Your task to perform on an android device: Empty the shopping cart on amazon. Add "razer naga" to the cart on amazon Image 0: 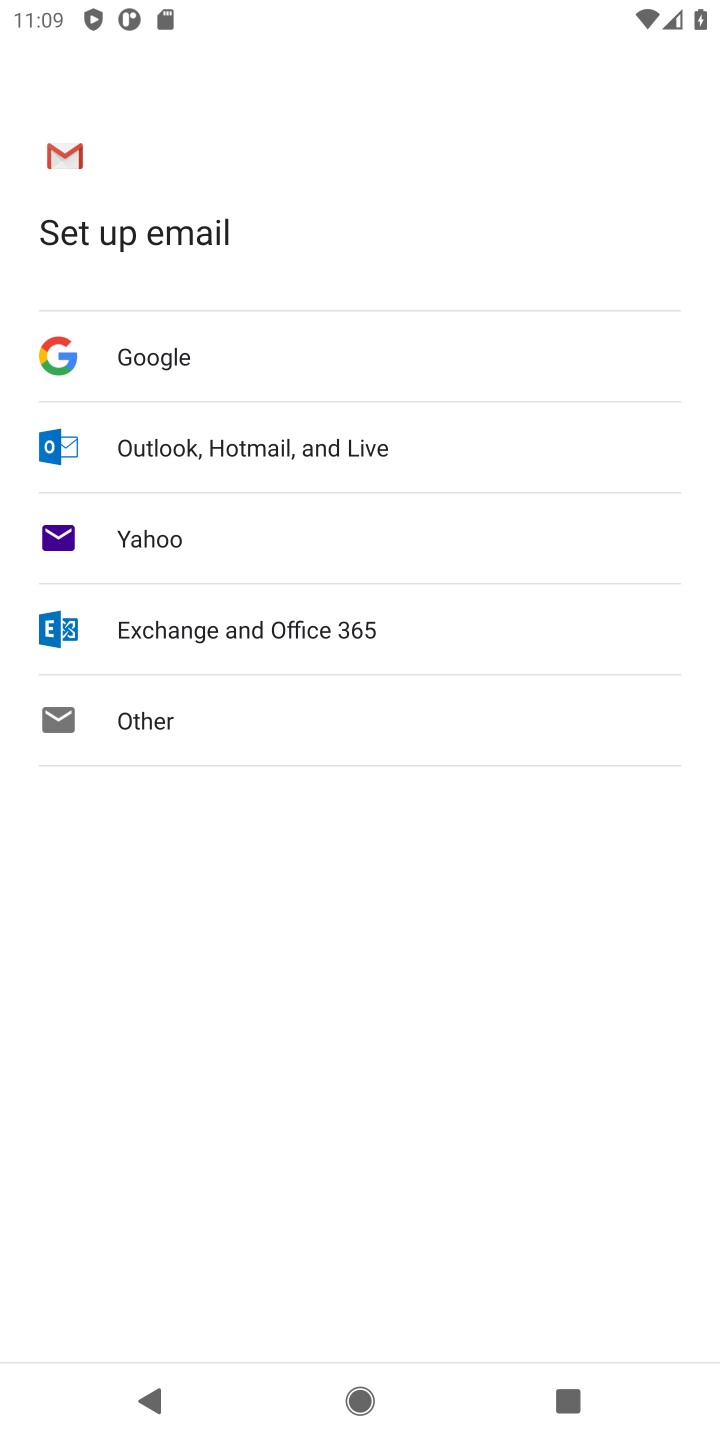
Step 0: press home button
Your task to perform on an android device: Empty the shopping cart on amazon. Add "razer naga" to the cart on amazon Image 1: 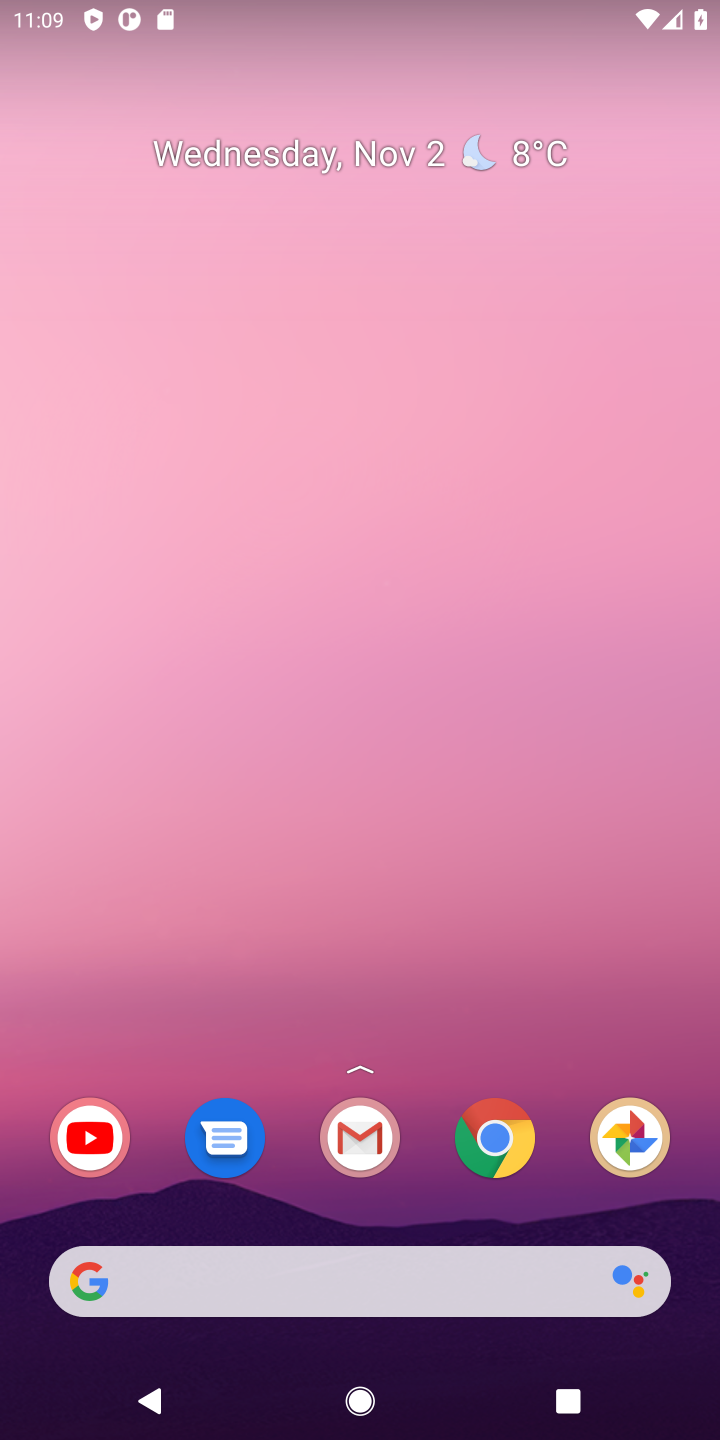
Step 1: click (515, 1143)
Your task to perform on an android device: Empty the shopping cart on amazon. Add "razer naga" to the cart on amazon Image 2: 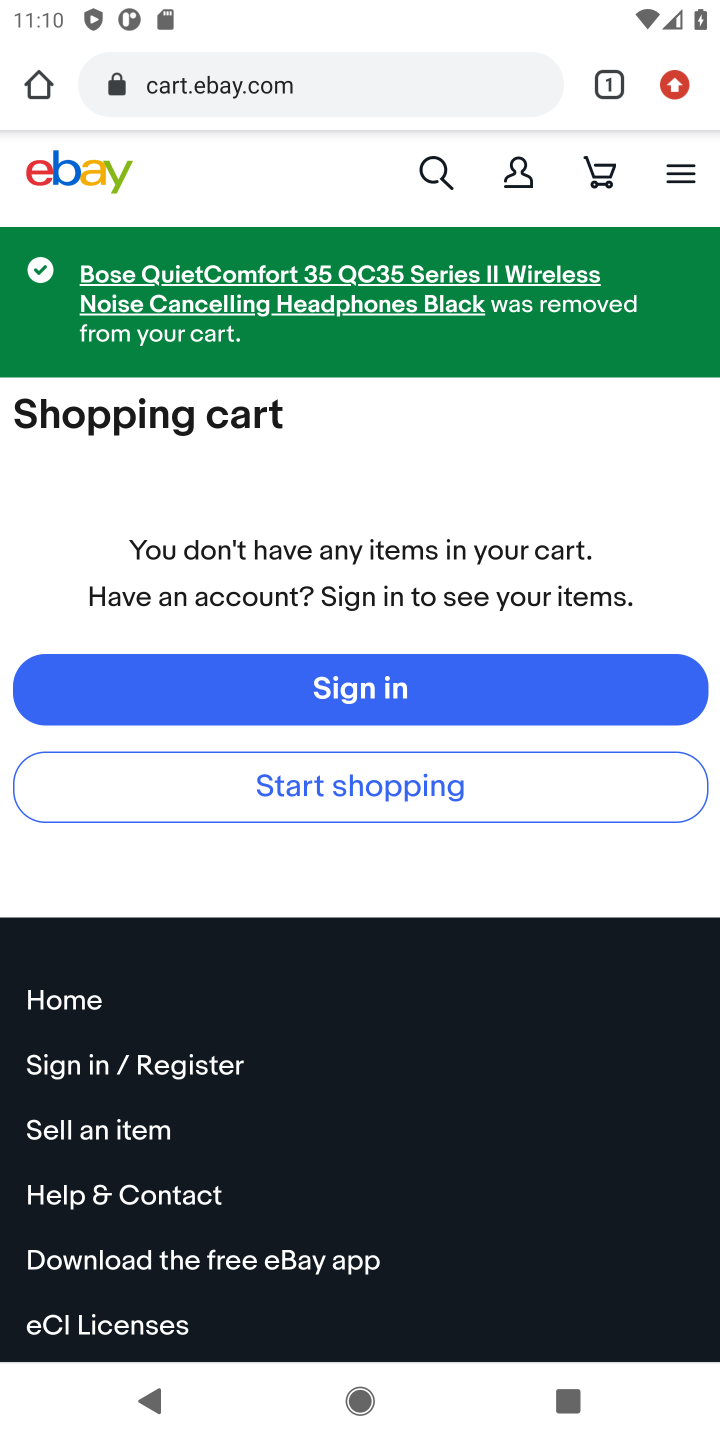
Step 2: click (370, 62)
Your task to perform on an android device: Empty the shopping cart on amazon. Add "razer naga" to the cart on amazon Image 3: 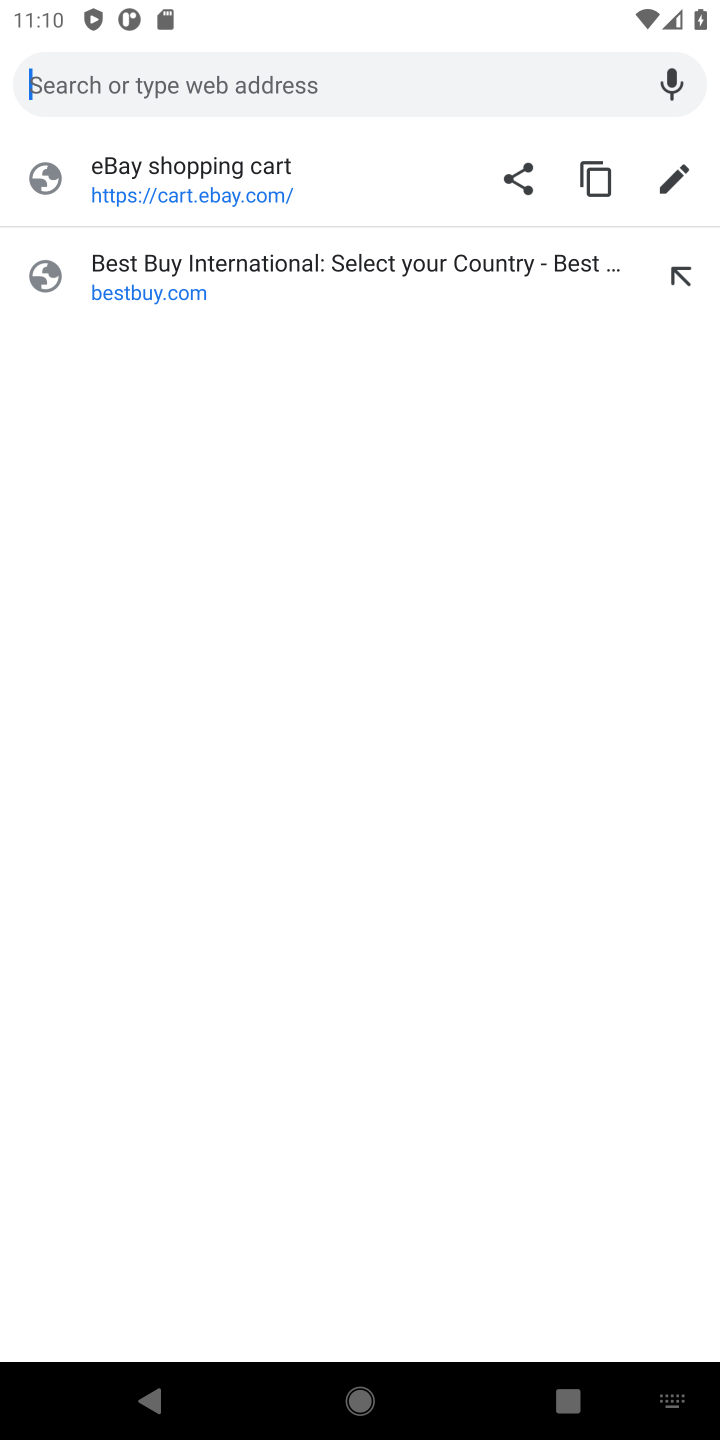
Step 3: type "amazon"
Your task to perform on an android device: Empty the shopping cart on amazon. Add "razer naga" to the cart on amazon Image 4: 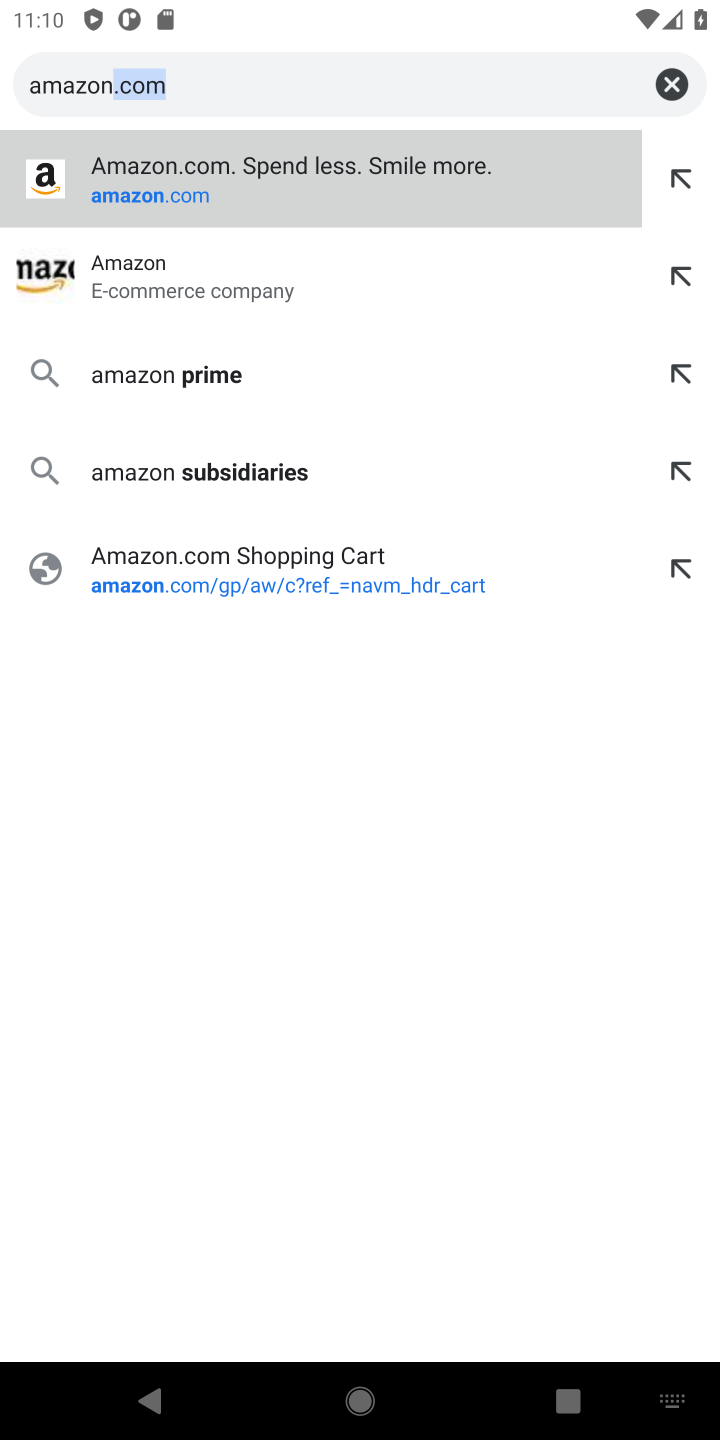
Step 4: click (269, 281)
Your task to perform on an android device: Empty the shopping cart on amazon. Add "razer naga" to the cart on amazon Image 5: 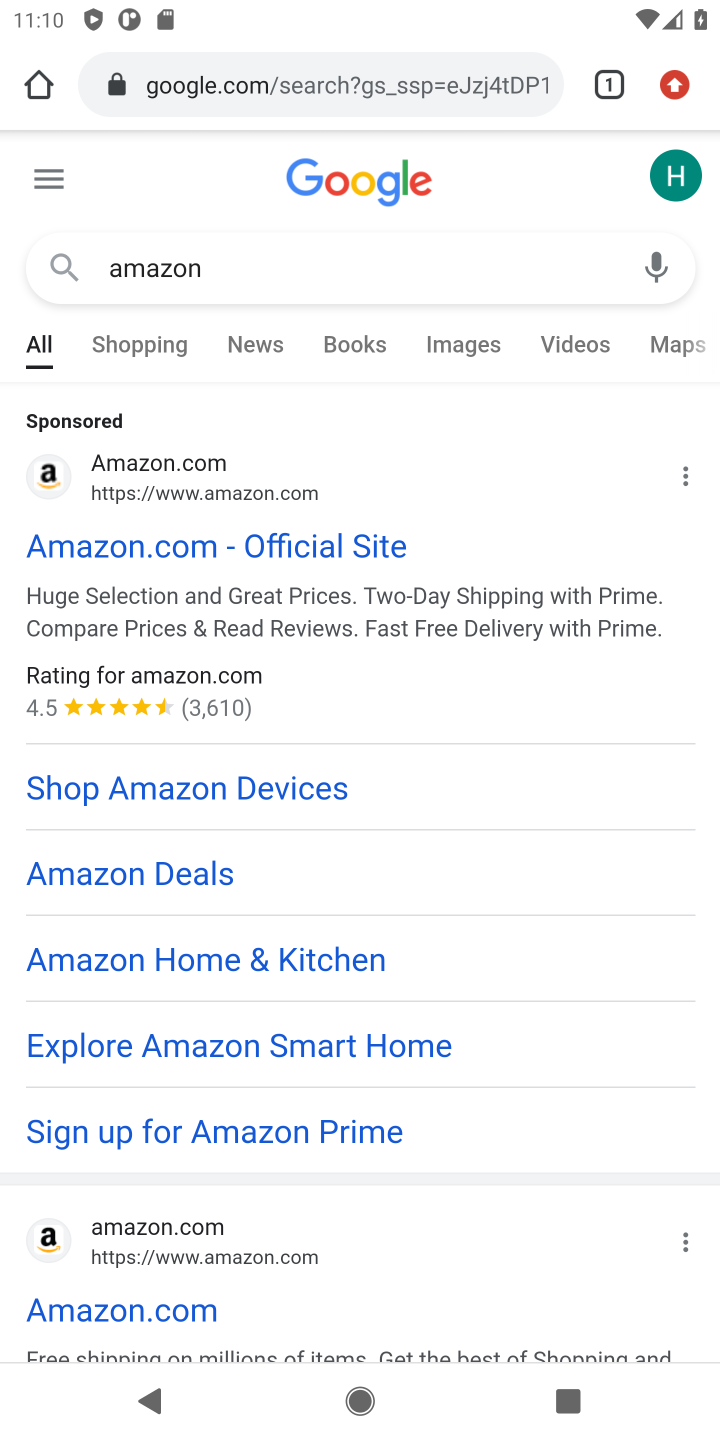
Step 5: click (147, 549)
Your task to perform on an android device: Empty the shopping cart on amazon. Add "razer naga" to the cart on amazon Image 6: 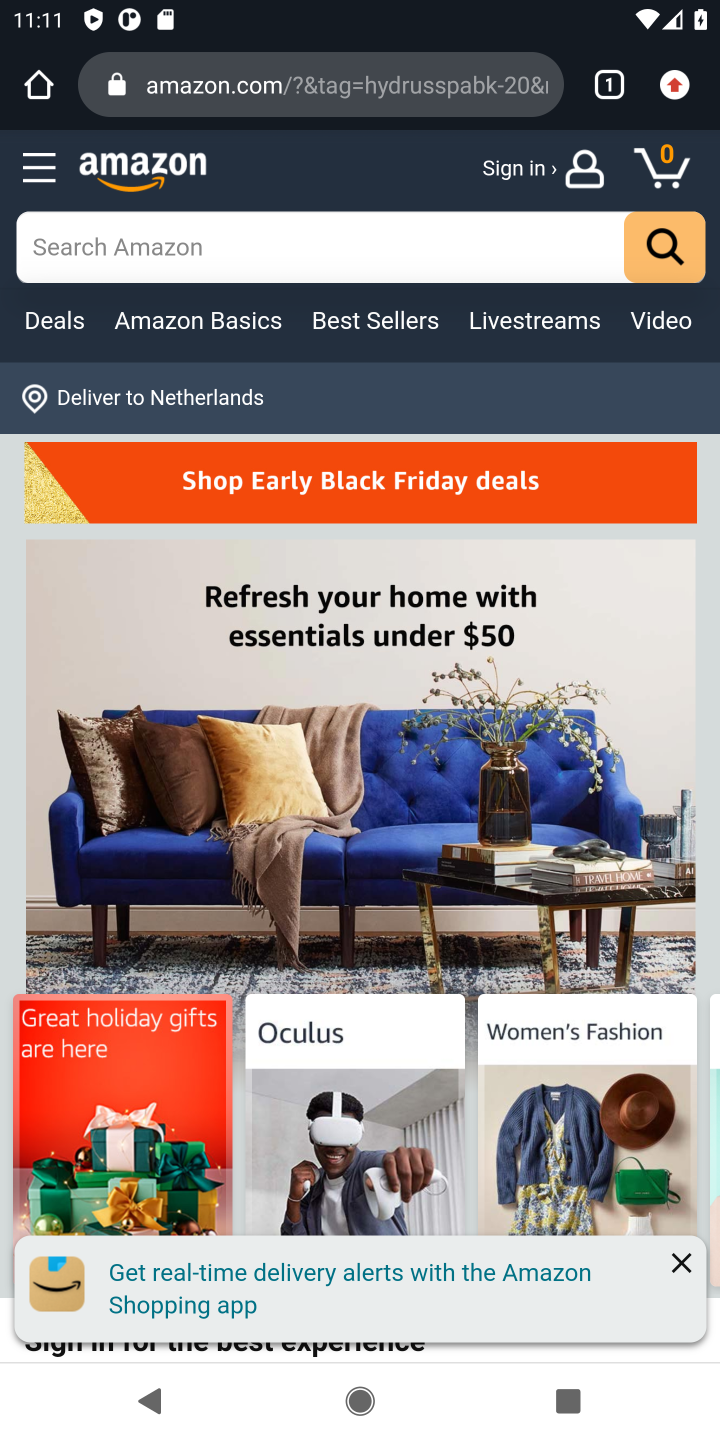
Step 6: click (660, 171)
Your task to perform on an android device: Empty the shopping cart on amazon. Add "razer naga" to the cart on amazon Image 7: 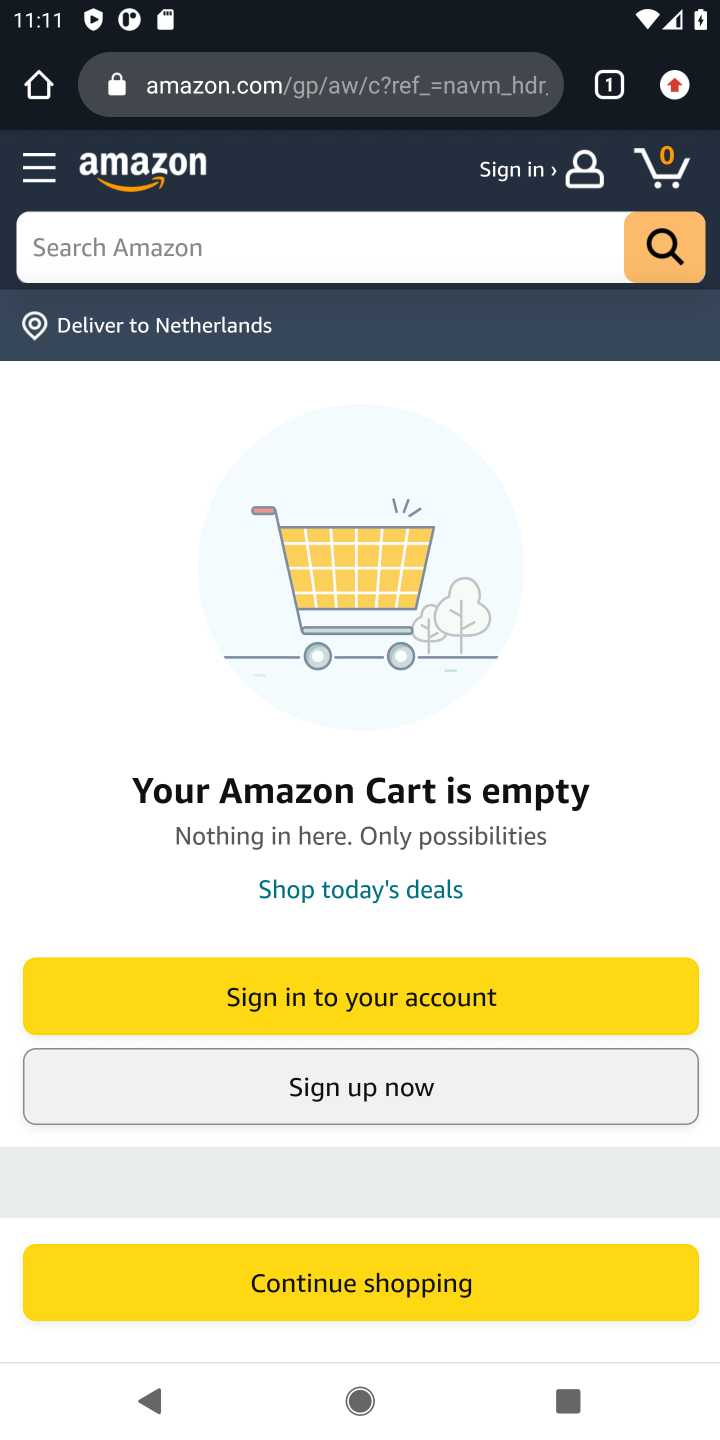
Step 7: click (253, 224)
Your task to perform on an android device: Empty the shopping cart on amazon. Add "razer naga" to the cart on amazon Image 8: 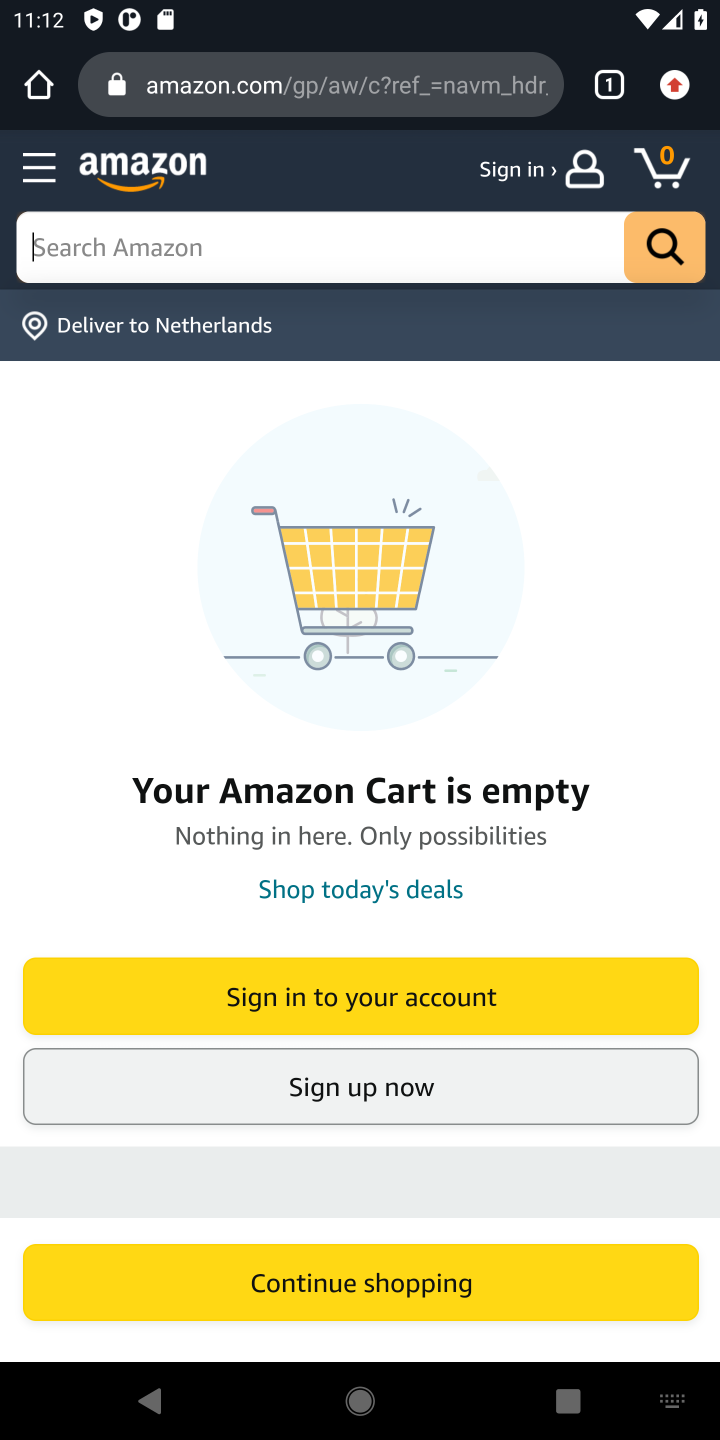
Step 8: click (181, 225)
Your task to perform on an android device: Empty the shopping cart on amazon. Add "razer naga" to the cart on amazon Image 9: 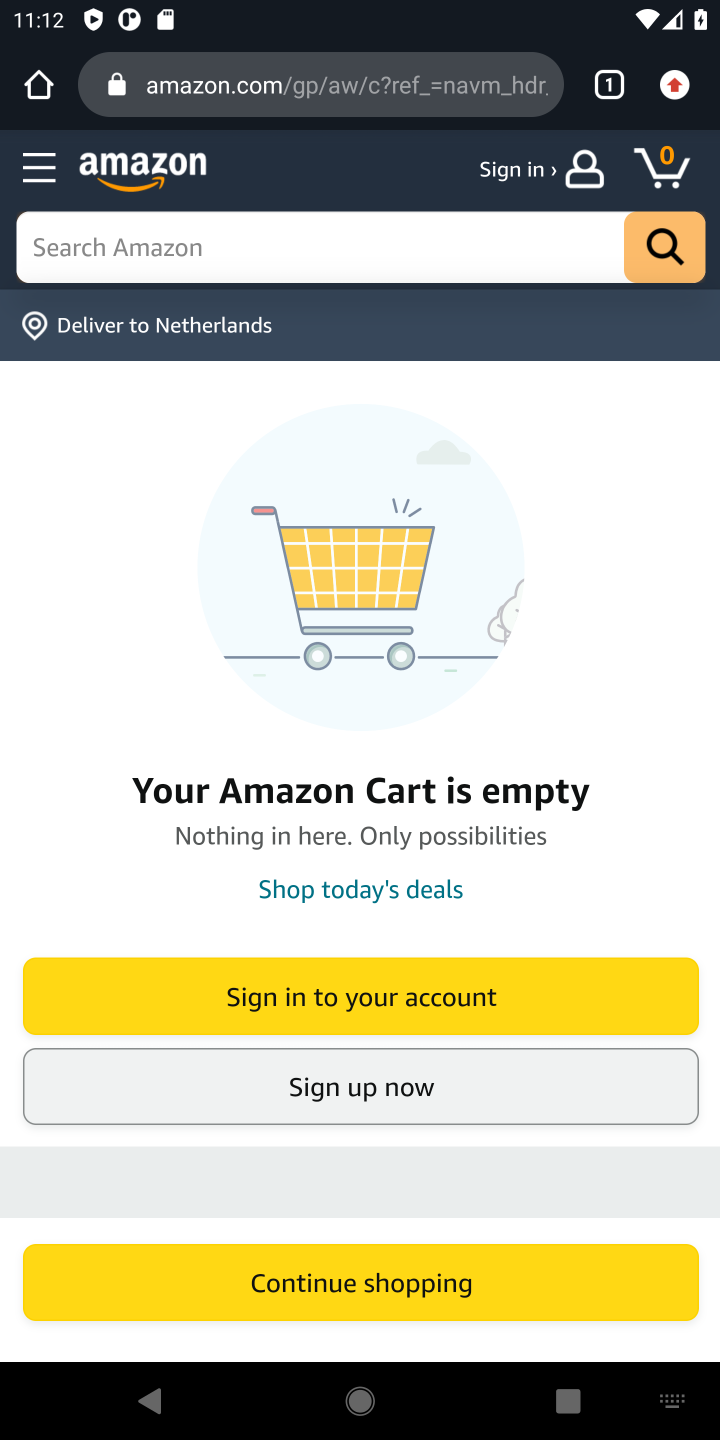
Step 9: type "razer naga"
Your task to perform on an android device: Empty the shopping cart on amazon. Add "razer naga" to the cart on amazon Image 10: 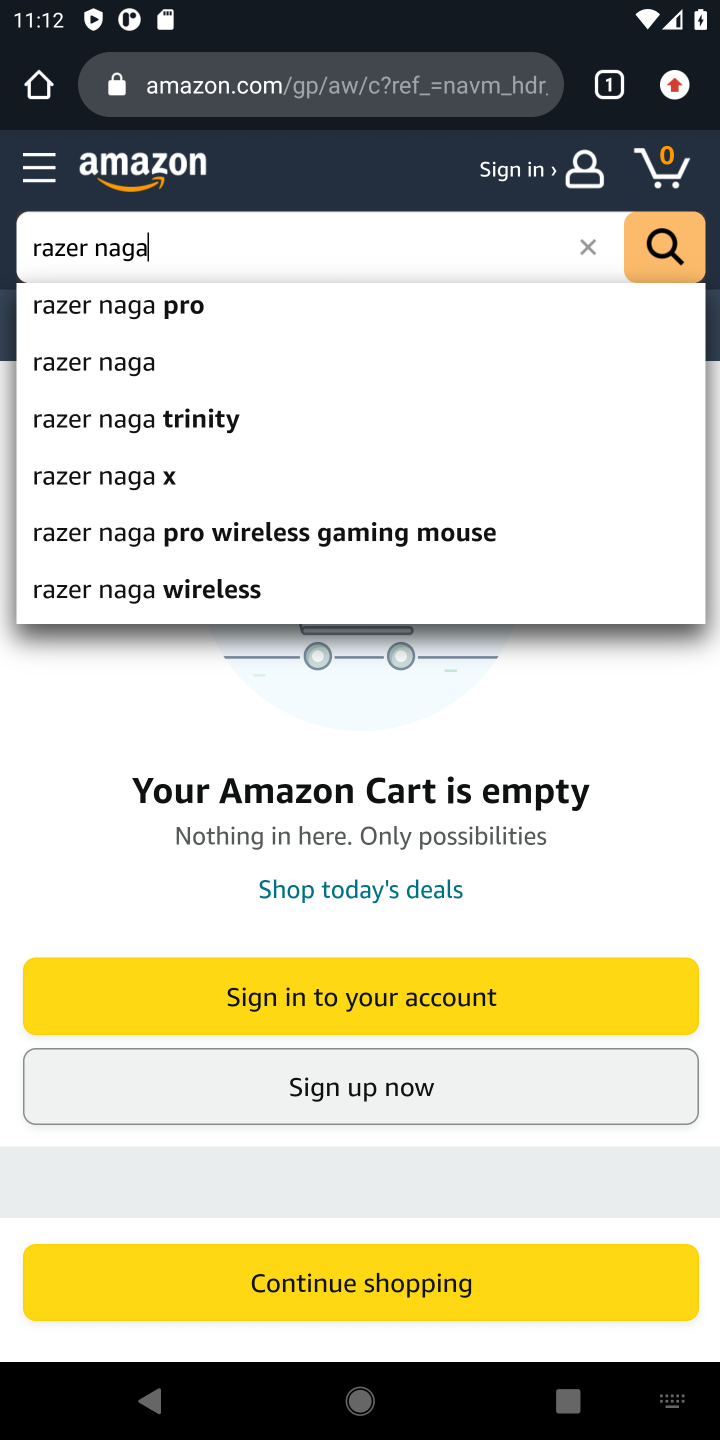
Step 10: click (669, 236)
Your task to perform on an android device: Empty the shopping cart on amazon. Add "razer naga" to the cart on amazon Image 11: 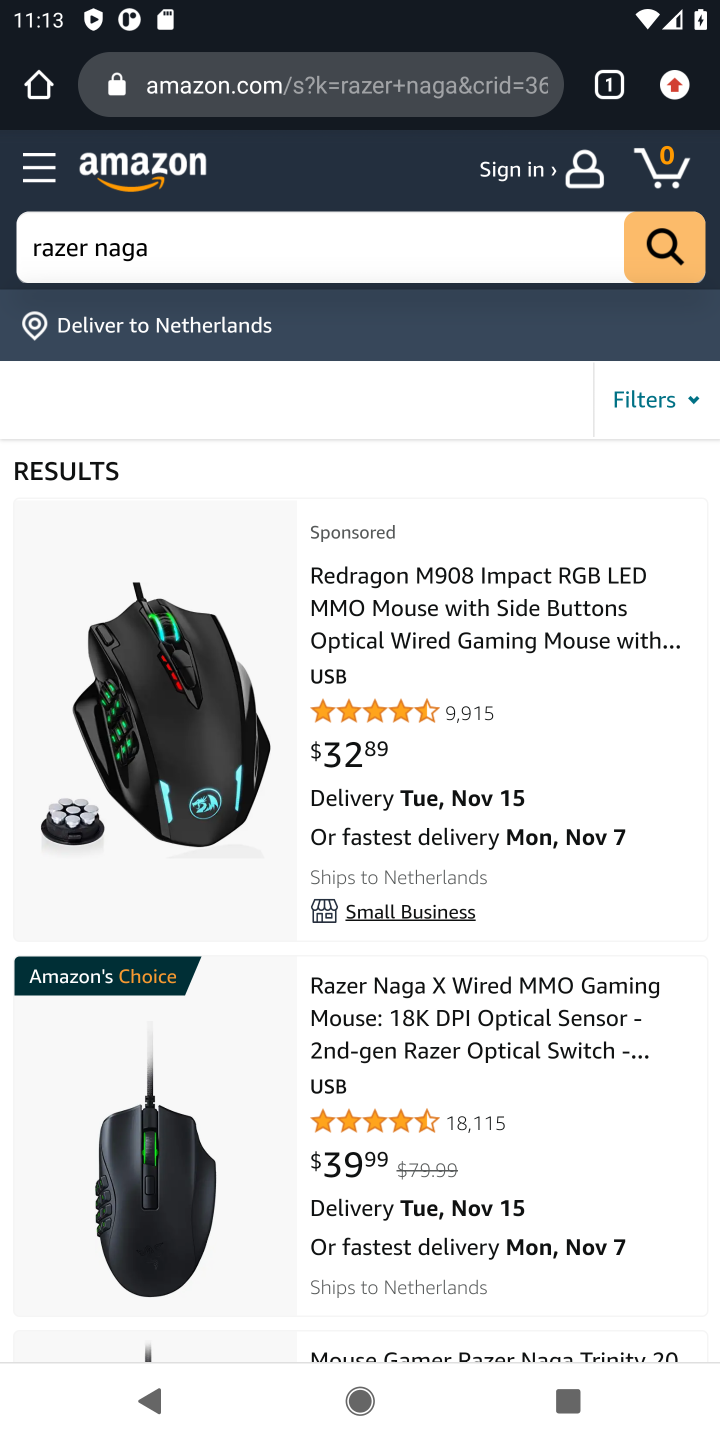
Step 11: click (440, 1023)
Your task to perform on an android device: Empty the shopping cart on amazon. Add "razer naga" to the cart on amazon Image 12: 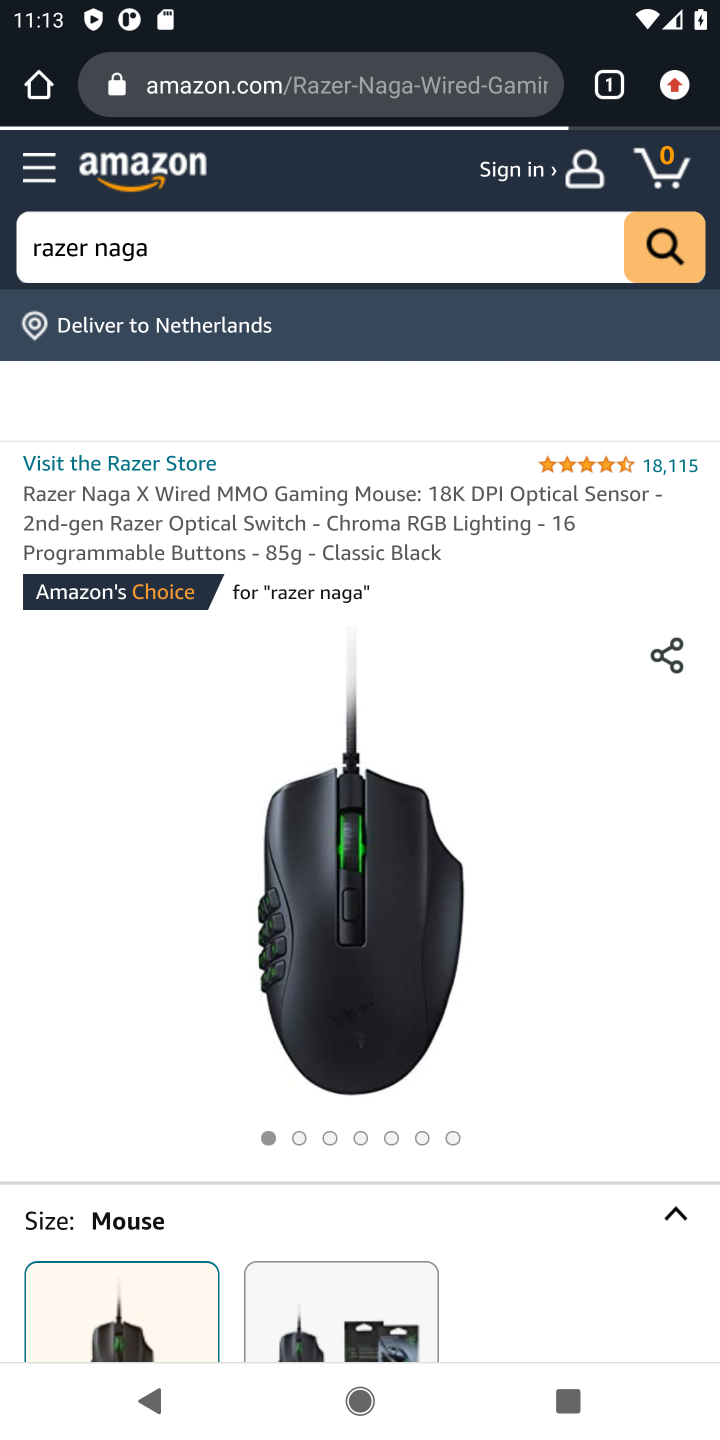
Step 12: drag from (145, 1132) to (148, 225)
Your task to perform on an android device: Empty the shopping cart on amazon. Add "razer naga" to the cart on amazon Image 13: 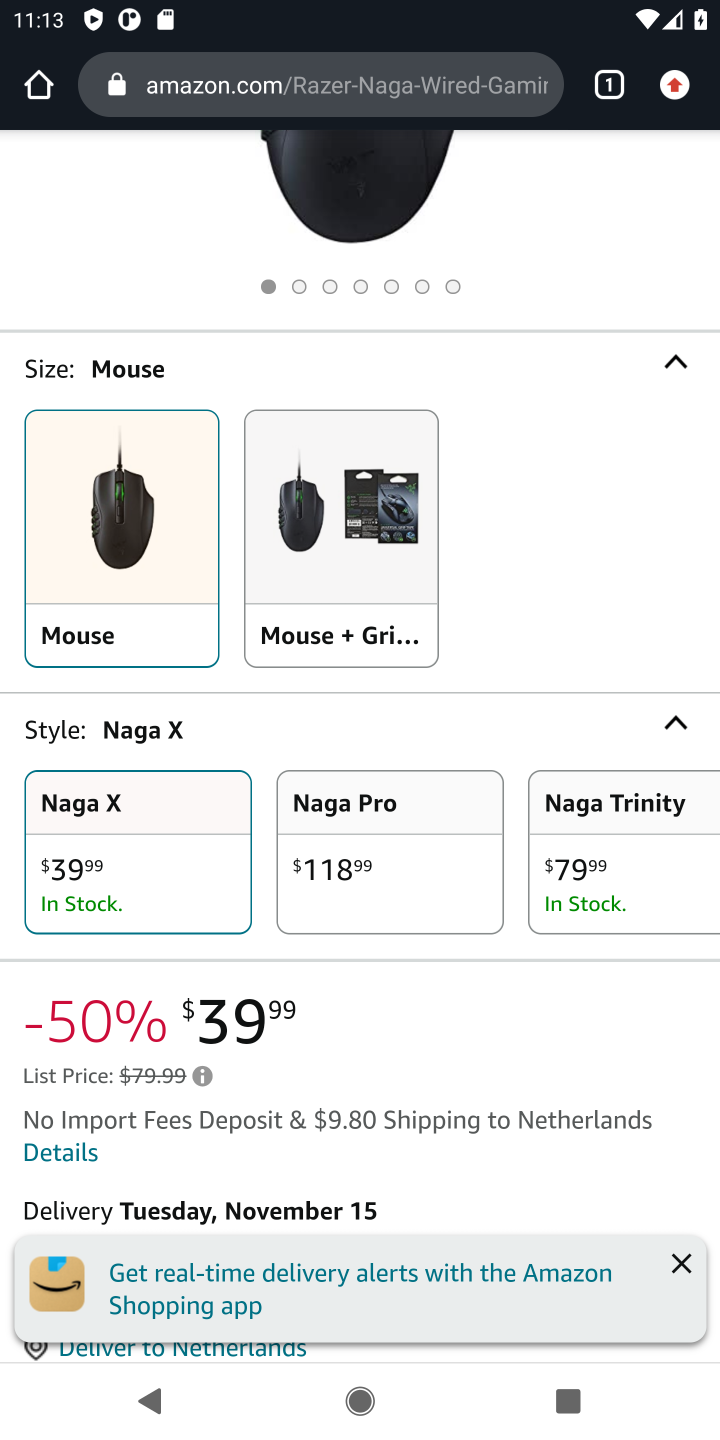
Step 13: drag from (353, 1177) to (369, 393)
Your task to perform on an android device: Empty the shopping cart on amazon. Add "razer naga" to the cart on amazon Image 14: 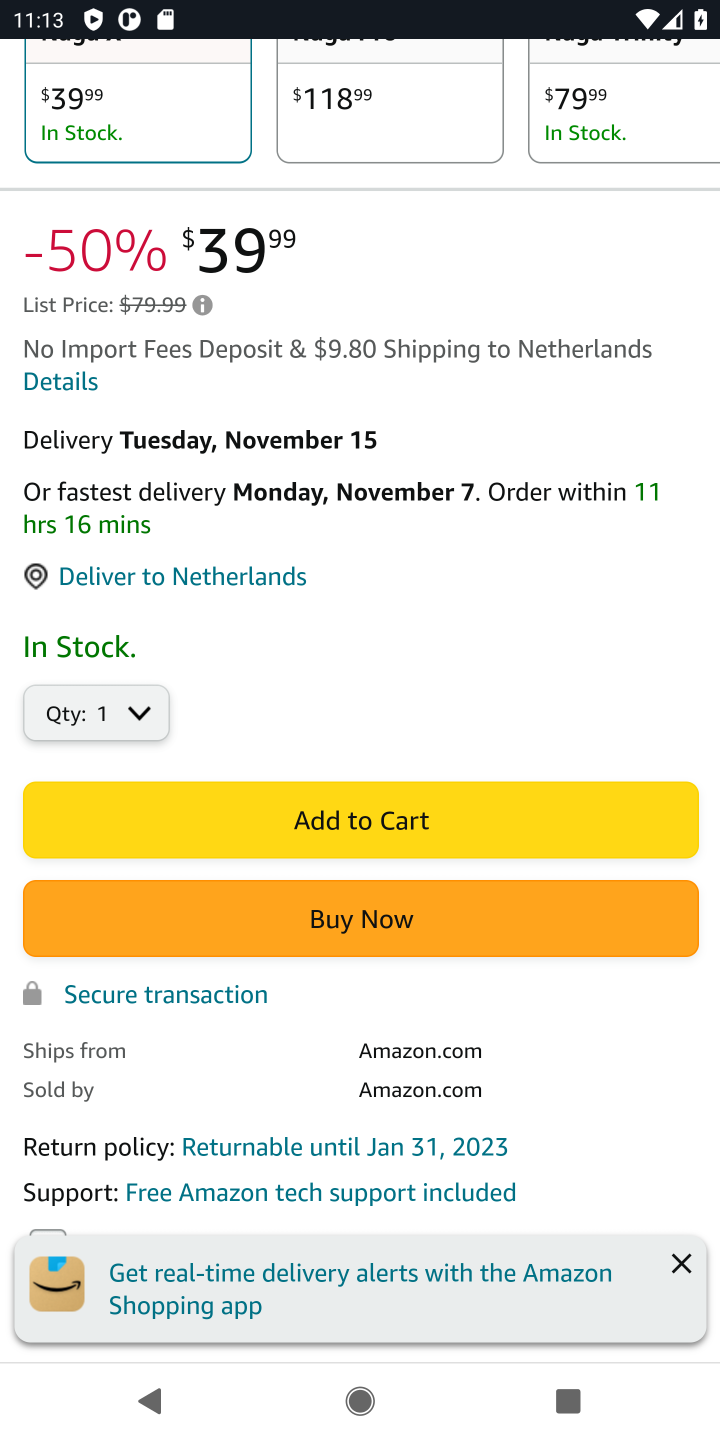
Step 14: click (456, 822)
Your task to perform on an android device: Empty the shopping cart on amazon. Add "razer naga" to the cart on amazon Image 15: 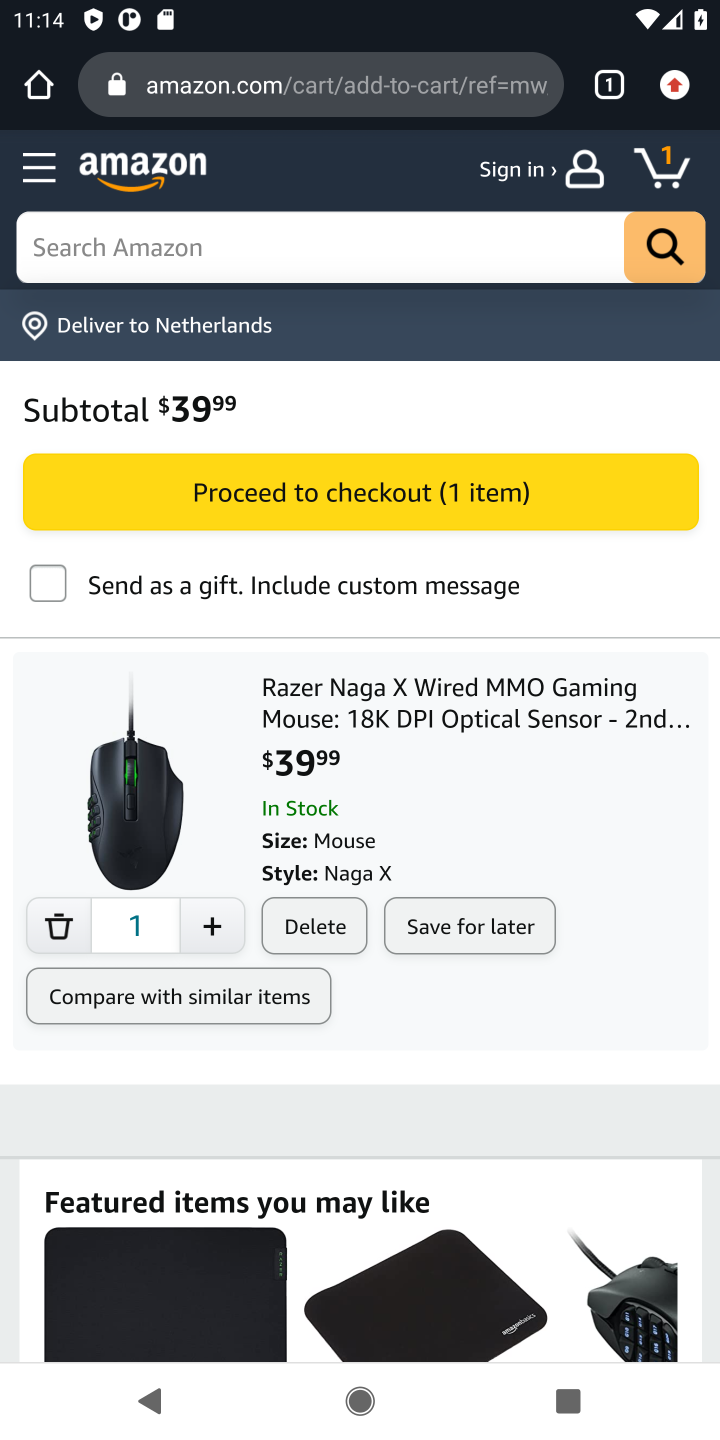
Step 15: task complete